Your task to perform on an android device: set the timer Image 0: 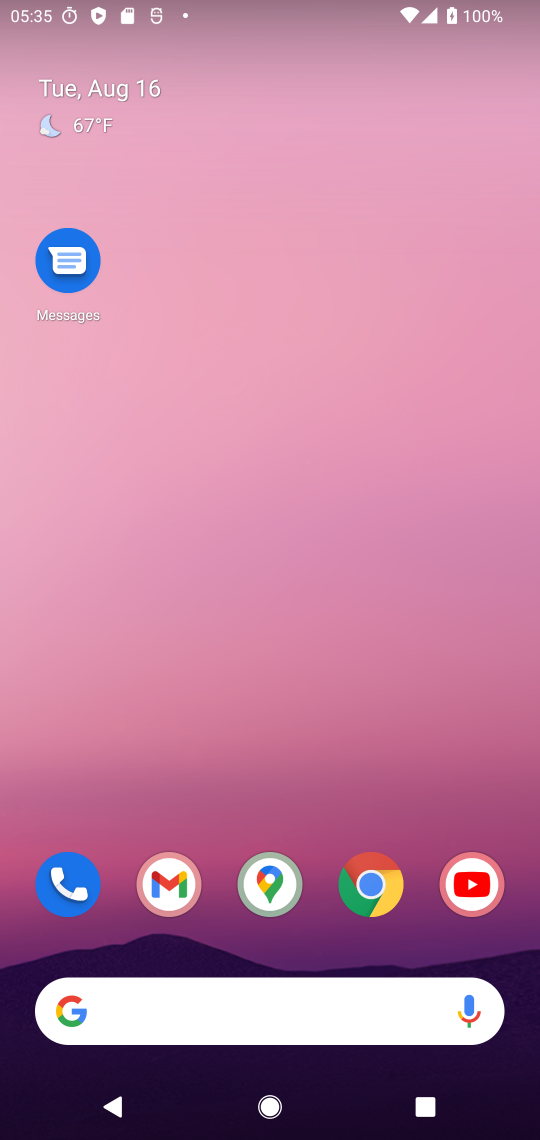
Step 0: drag from (69, 1101) to (353, 510)
Your task to perform on an android device: set the timer Image 1: 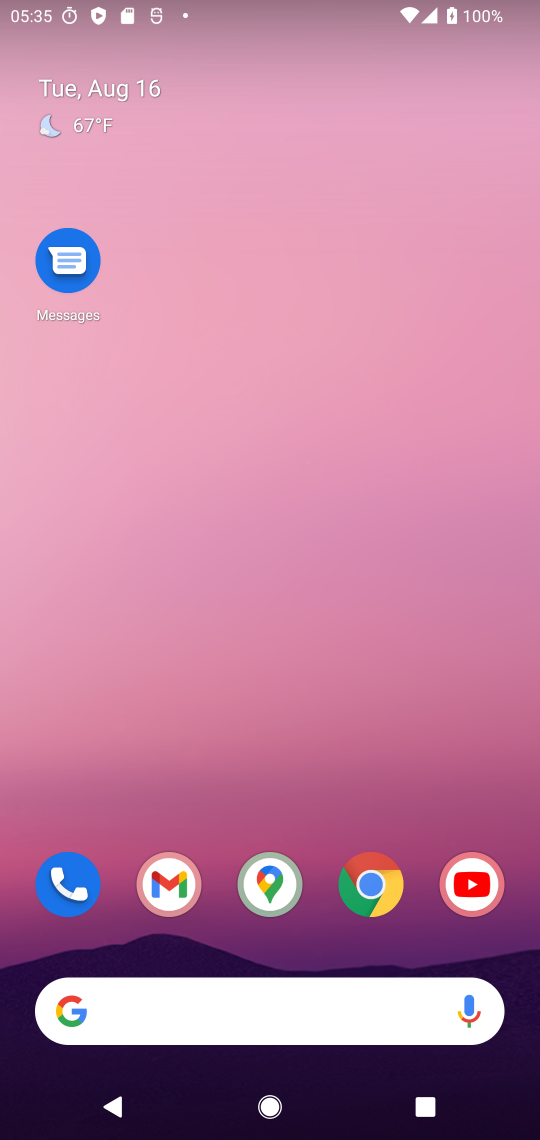
Step 1: drag from (43, 1080) to (231, 416)
Your task to perform on an android device: set the timer Image 2: 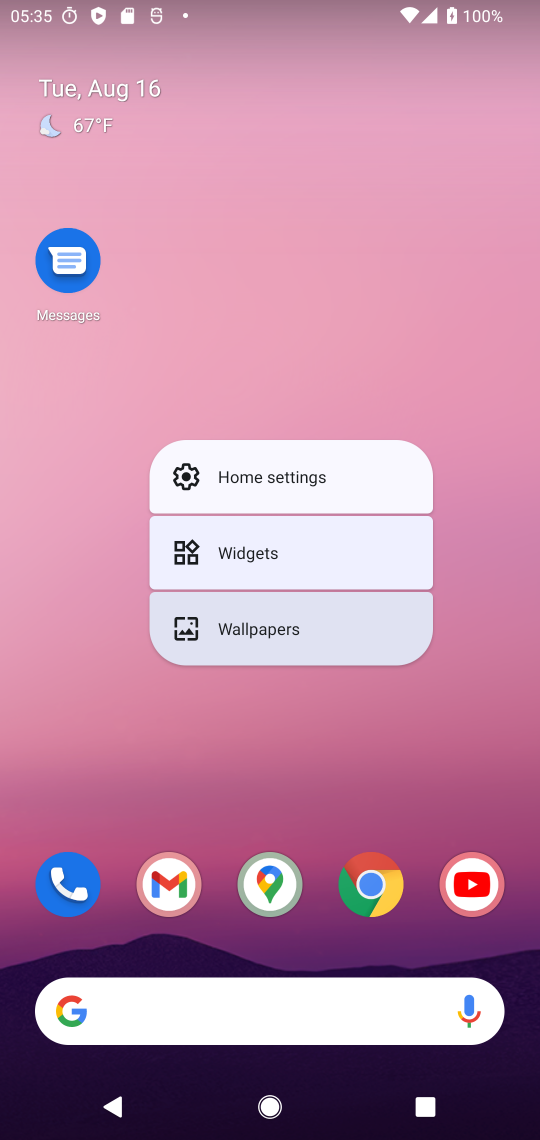
Step 2: click (1, 1110)
Your task to perform on an android device: set the timer Image 3: 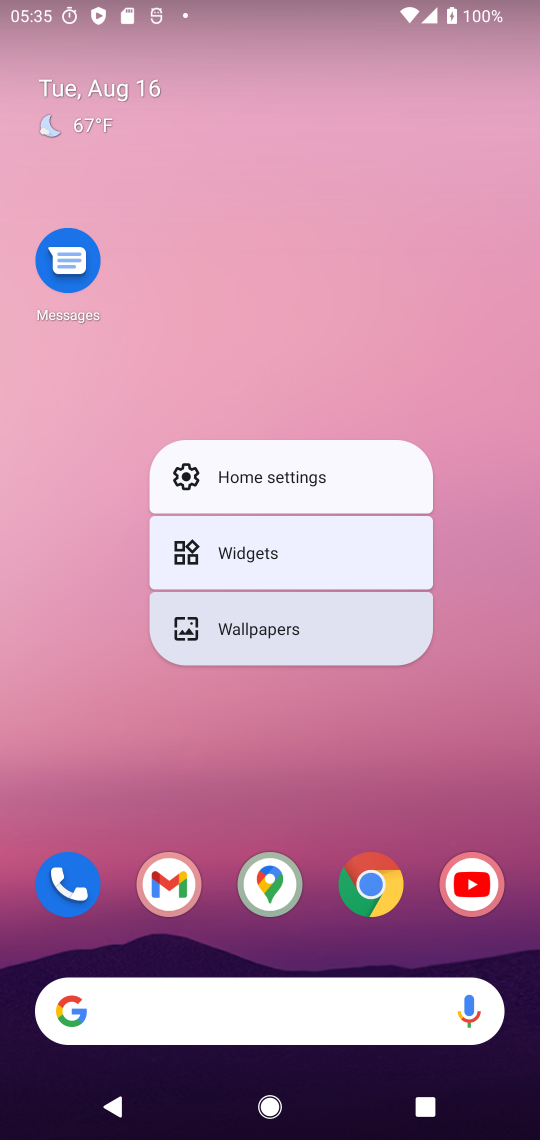
Step 3: click (29, 1105)
Your task to perform on an android device: set the timer Image 4: 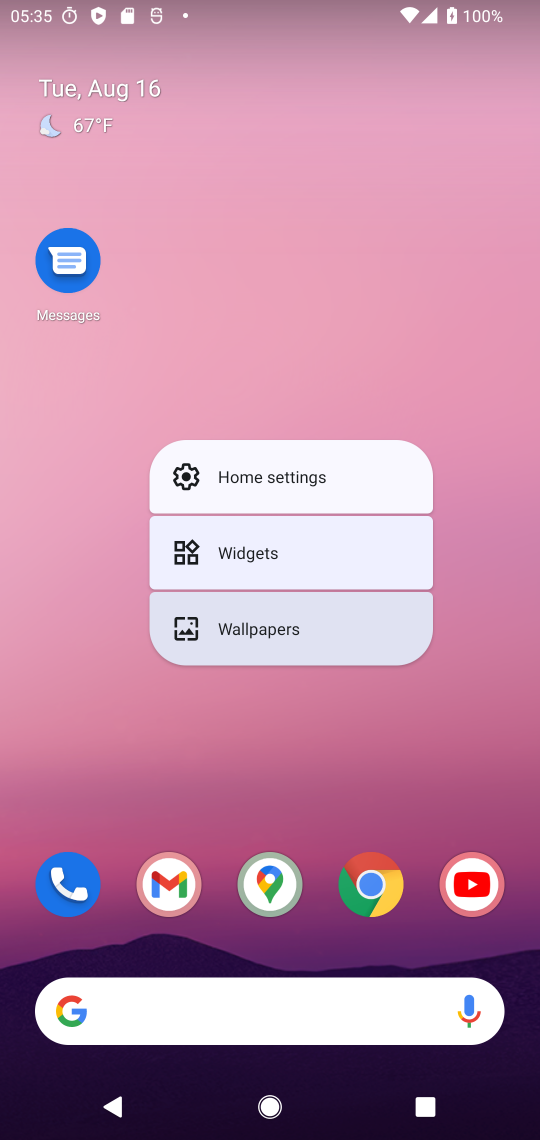
Step 4: task complete